Your task to perform on an android device: Play the last video I watched on Youtube Image 0: 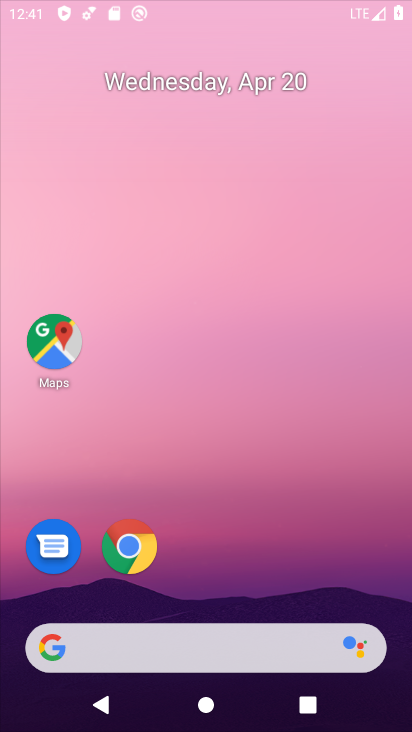
Step 0: drag from (274, 178) to (305, 32)
Your task to perform on an android device: Play the last video I watched on Youtube Image 1: 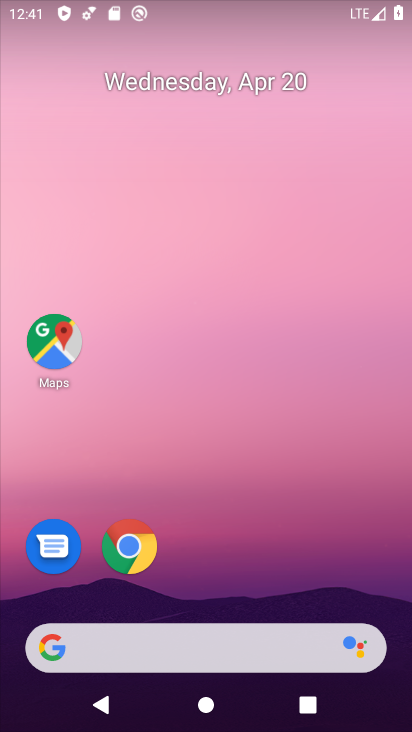
Step 1: drag from (263, 581) to (343, 20)
Your task to perform on an android device: Play the last video I watched on Youtube Image 2: 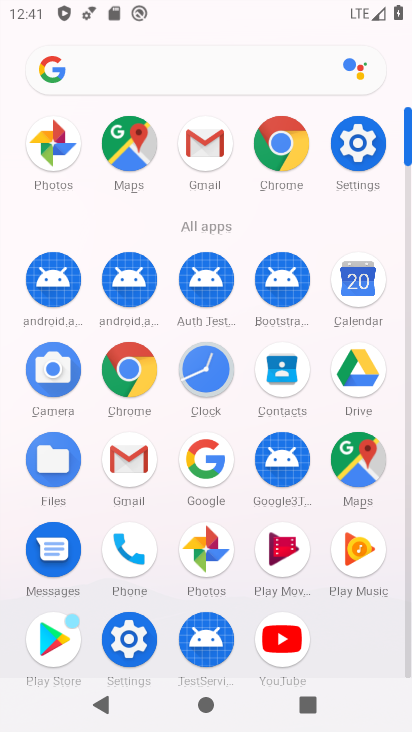
Step 2: click (285, 654)
Your task to perform on an android device: Play the last video I watched on Youtube Image 3: 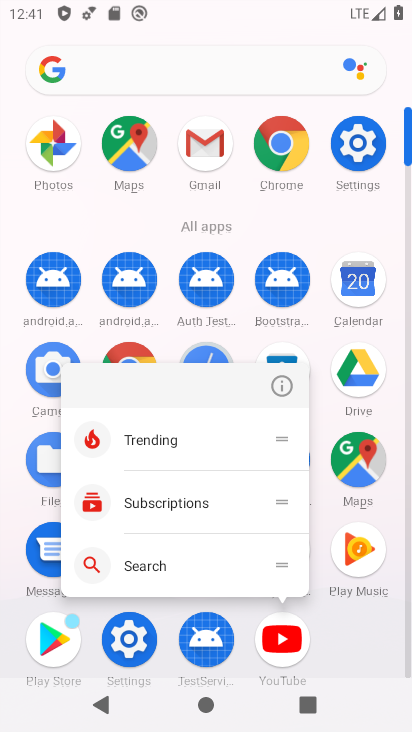
Step 3: click (286, 643)
Your task to perform on an android device: Play the last video I watched on Youtube Image 4: 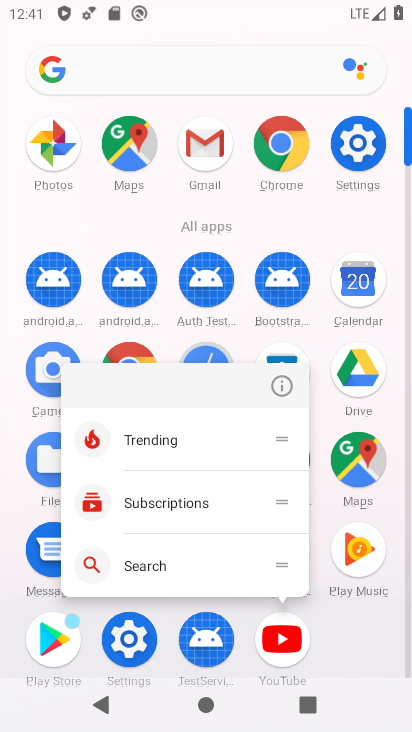
Step 4: click (287, 633)
Your task to perform on an android device: Play the last video I watched on Youtube Image 5: 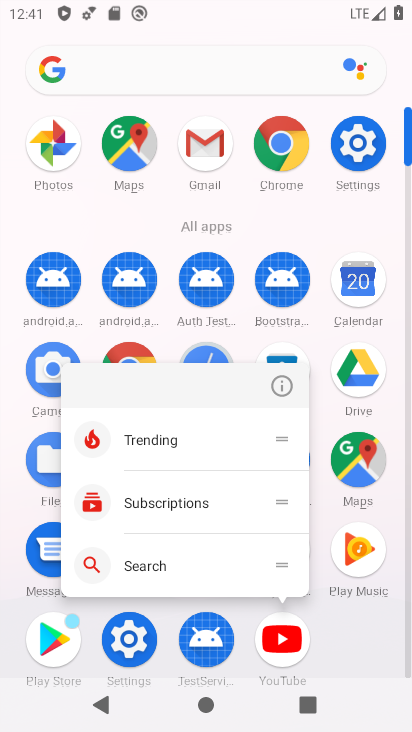
Step 5: click (302, 634)
Your task to perform on an android device: Play the last video I watched on Youtube Image 6: 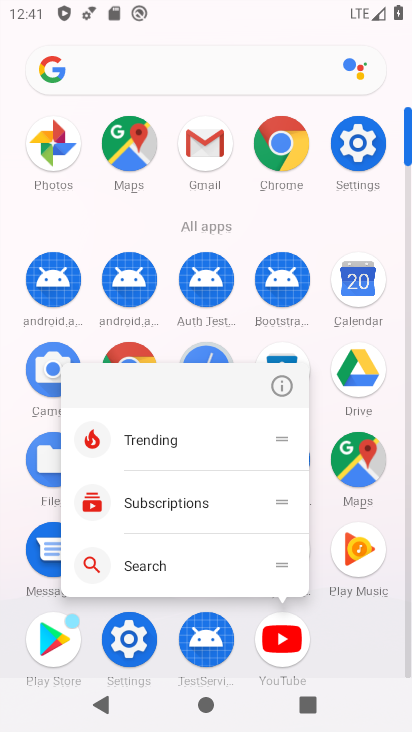
Step 6: click (267, 635)
Your task to perform on an android device: Play the last video I watched on Youtube Image 7: 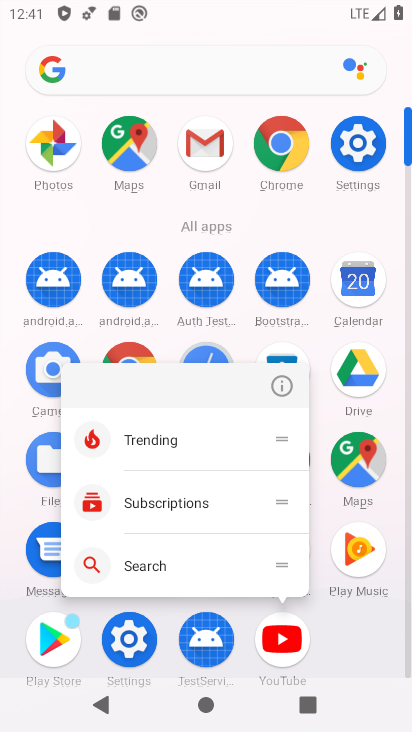
Step 7: click (276, 651)
Your task to perform on an android device: Play the last video I watched on Youtube Image 8: 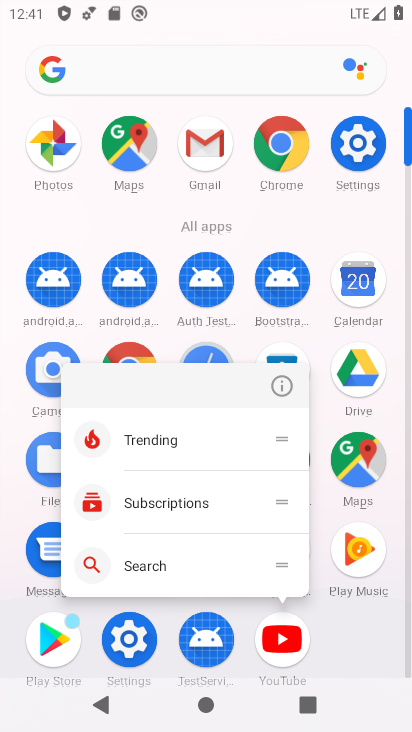
Step 8: click (285, 647)
Your task to perform on an android device: Play the last video I watched on Youtube Image 9: 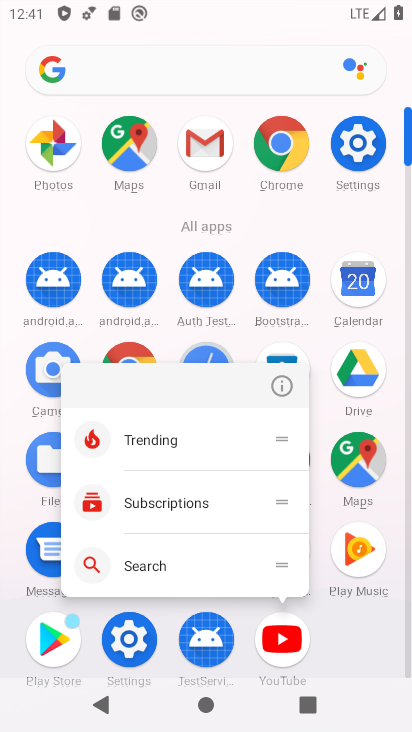
Step 9: click (300, 639)
Your task to perform on an android device: Play the last video I watched on Youtube Image 10: 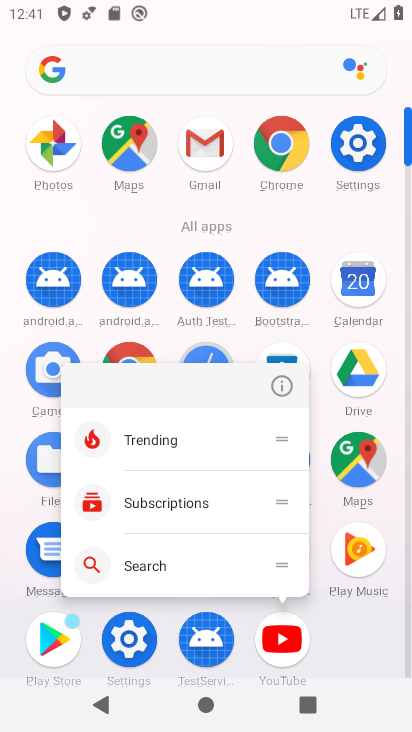
Step 10: click (292, 638)
Your task to perform on an android device: Play the last video I watched on Youtube Image 11: 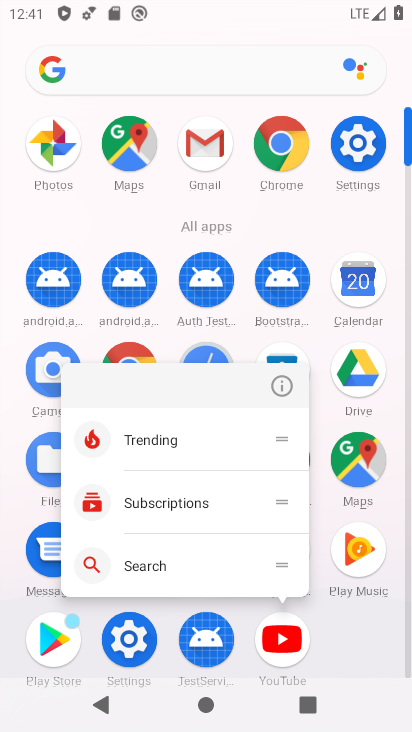
Step 11: click (286, 634)
Your task to perform on an android device: Play the last video I watched on Youtube Image 12: 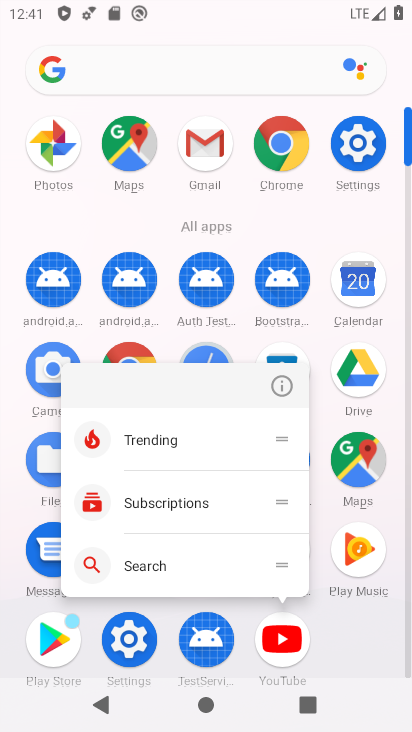
Step 12: click (289, 646)
Your task to perform on an android device: Play the last video I watched on Youtube Image 13: 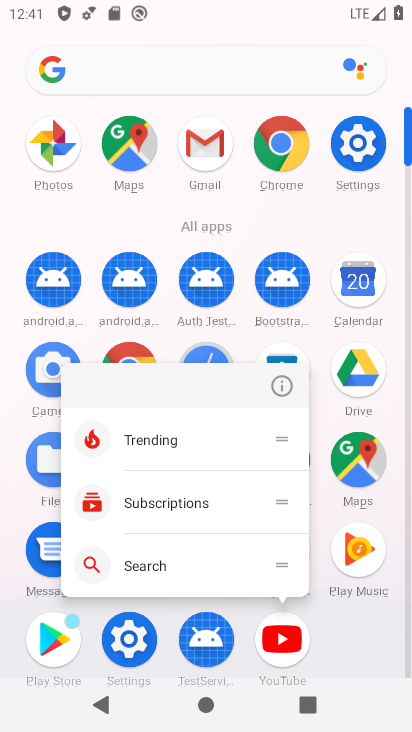
Step 13: click (289, 637)
Your task to perform on an android device: Play the last video I watched on Youtube Image 14: 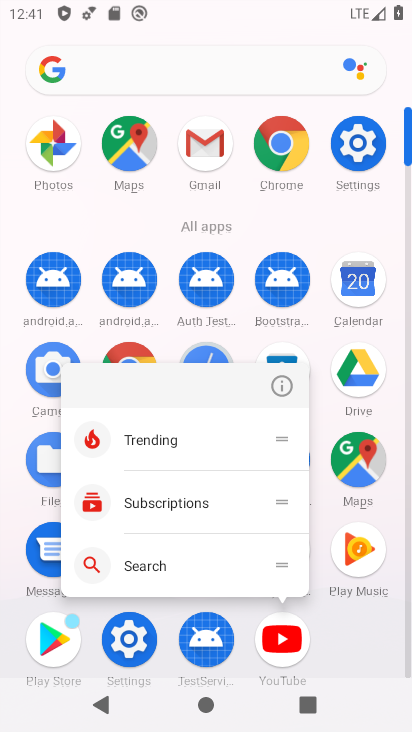
Step 14: click (287, 625)
Your task to perform on an android device: Play the last video I watched on Youtube Image 15: 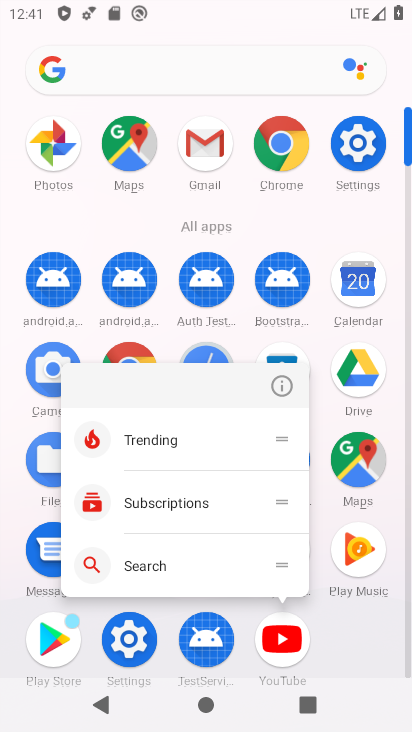
Step 15: click (276, 646)
Your task to perform on an android device: Play the last video I watched on Youtube Image 16: 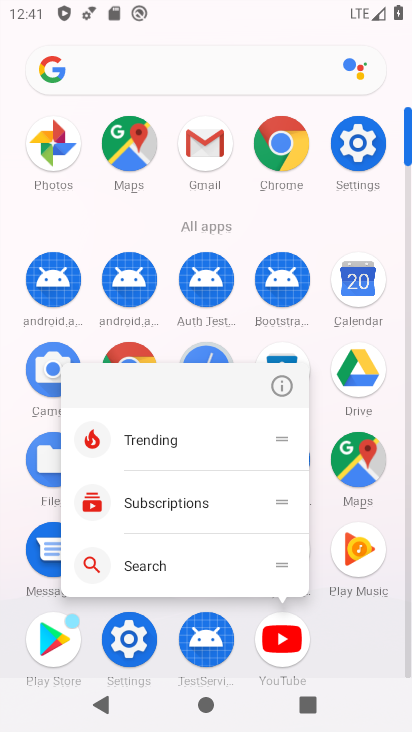
Step 16: click (284, 642)
Your task to perform on an android device: Play the last video I watched on Youtube Image 17: 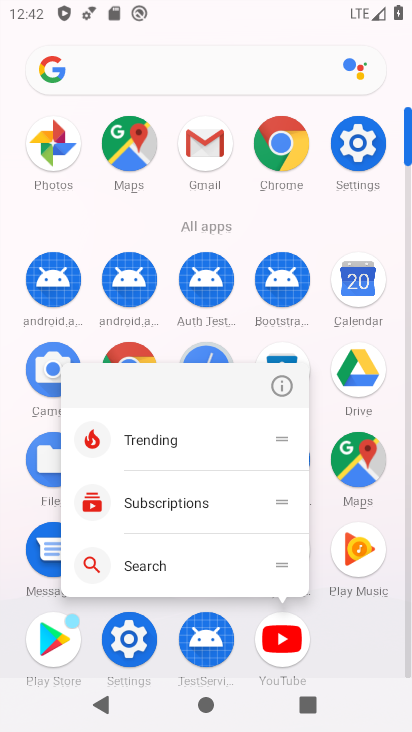
Step 17: click (283, 642)
Your task to perform on an android device: Play the last video I watched on Youtube Image 18: 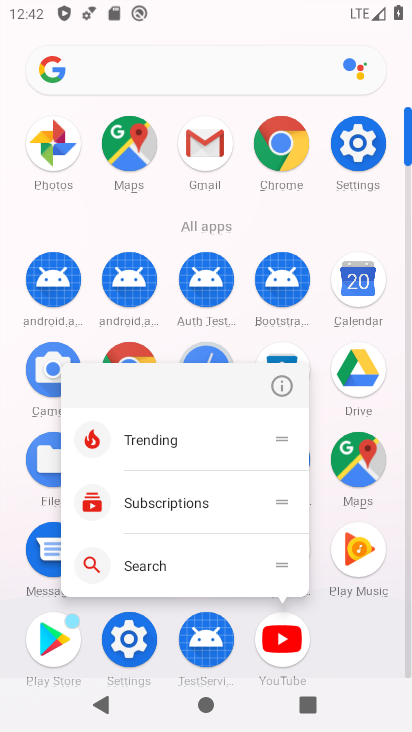
Step 18: click (261, 630)
Your task to perform on an android device: Play the last video I watched on Youtube Image 19: 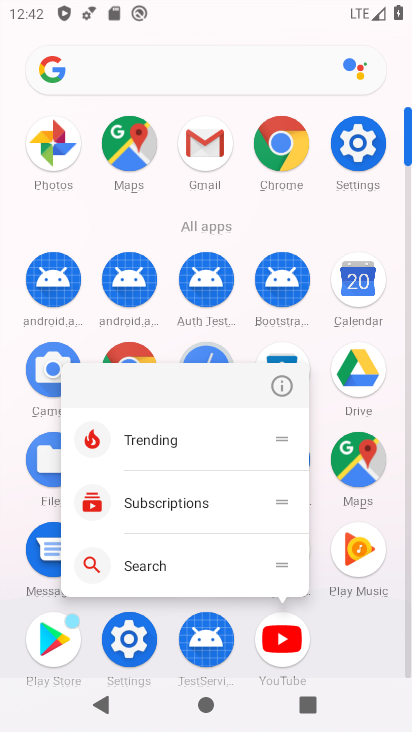
Step 19: click (275, 649)
Your task to perform on an android device: Play the last video I watched on Youtube Image 20: 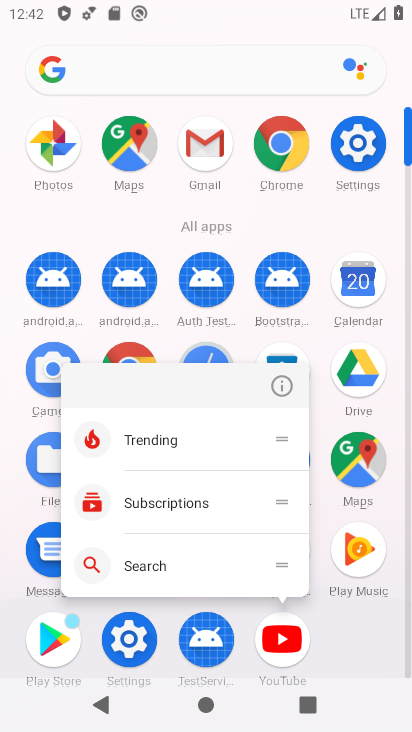
Step 20: click (288, 646)
Your task to perform on an android device: Play the last video I watched on Youtube Image 21: 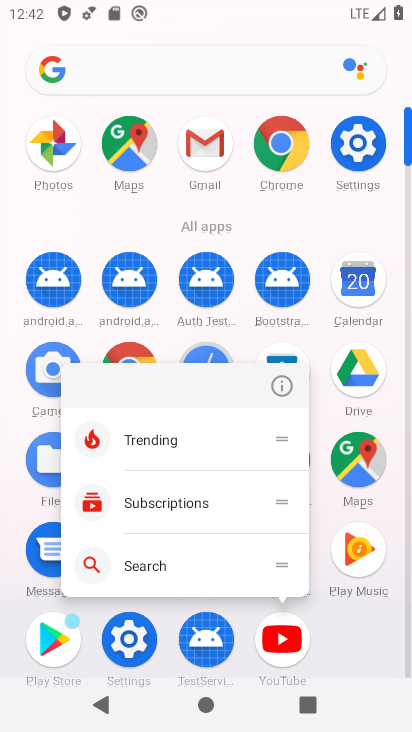
Step 21: click (288, 627)
Your task to perform on an android device: Play the last video I watched on Youtube Image 22: 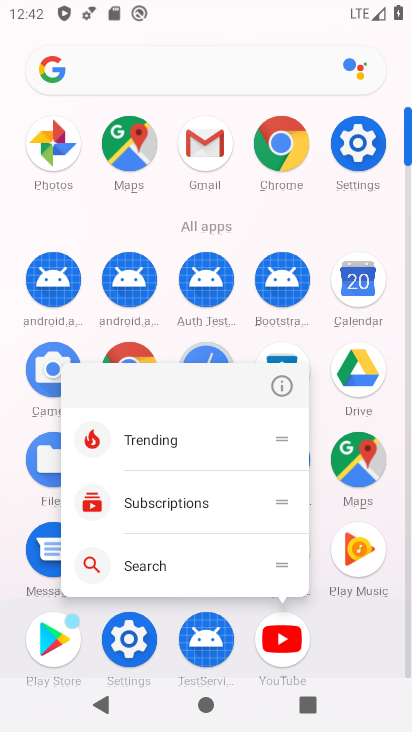
Step 22: click (279, 641)
Your task to perform on an android device: Play the last video I watched on Youtube Image 23: 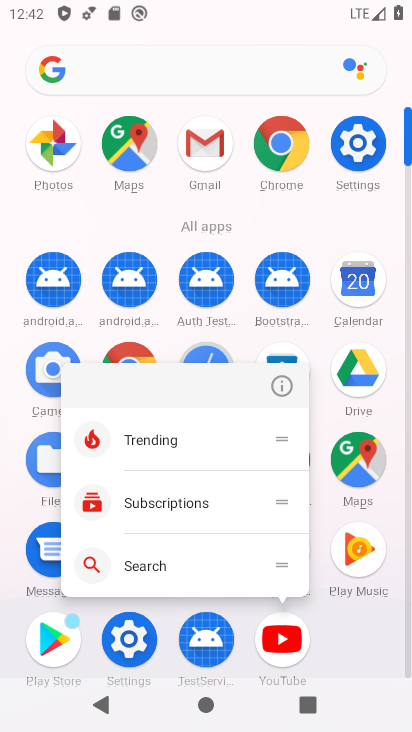
Step 23: click (261, 624)
Your task to perform on an android device: Play the last video I watched on Youtube Image 24: 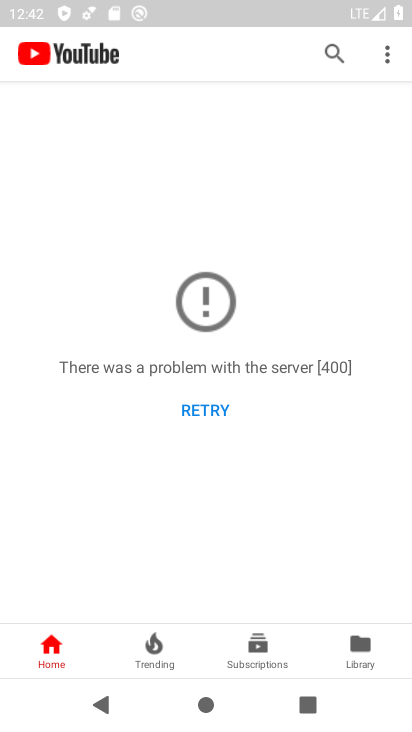
Step 24: click (360, 647)
Your task to perform on an android device: Play the last video I watched on Youtube Image 25: 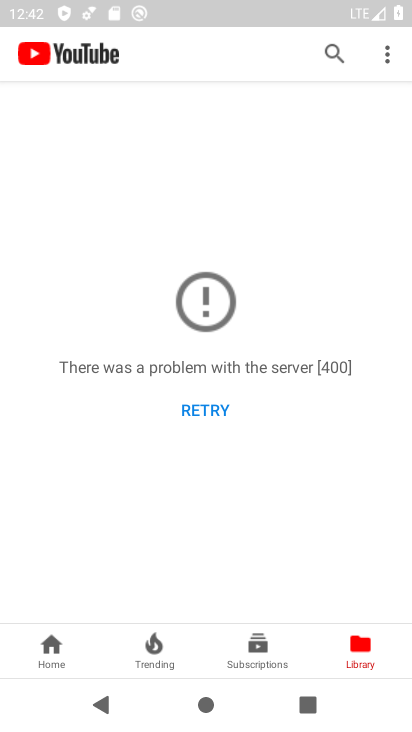
Step 25: task complete